Your task to perform on an android device: turn on airplane mode Image 0: 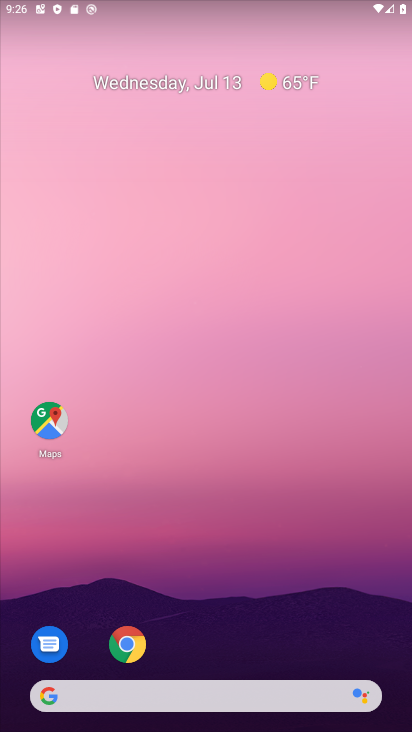
Step 0: drag from (263, 519) to (292, 34)
Your task to perform on an android device: turn on airplane mode Image 1: 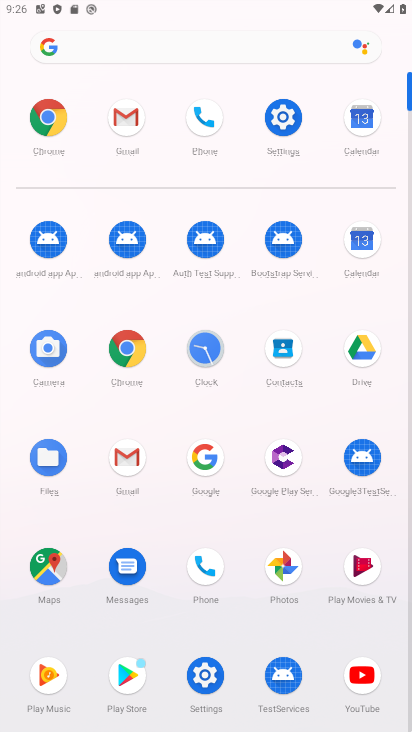
Step 1: click (276, 124)
Your task to perform on an android device: turn on airplane mode Image 2: 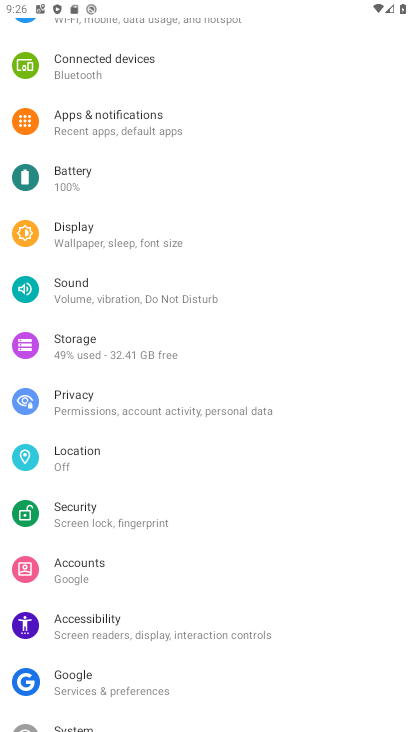
Step 2: drag from (276, 124) to (195, 566)
Your task to perform on an android device: turn on airplane mode Image 3: 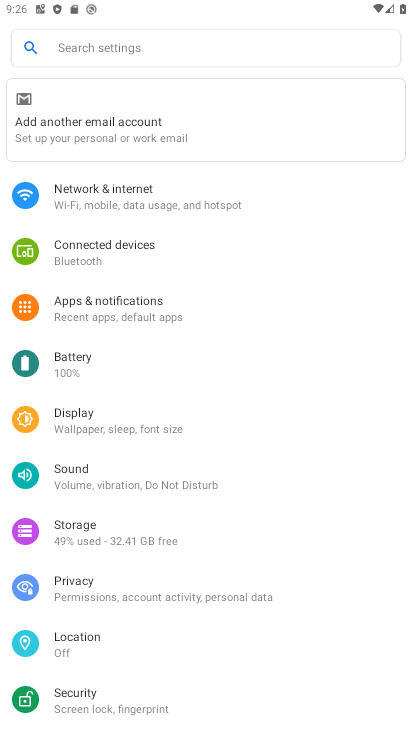
Step 3: click (107, 197)
Your task to perform on an android device: turn on airplane mode Image 4: 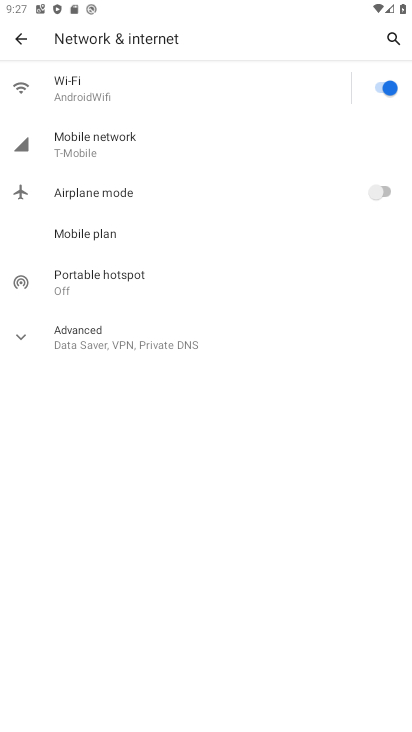
Step 4: click (373, 201)
Your task to perform on an android device: turn on airplane mode Image 5: 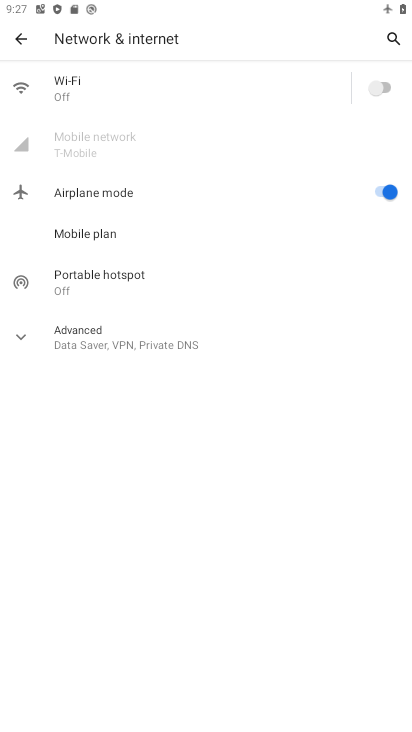
Step 5: task complete